Your task to perform on an android device: Show me productivity apps on the Play Store Image 0: 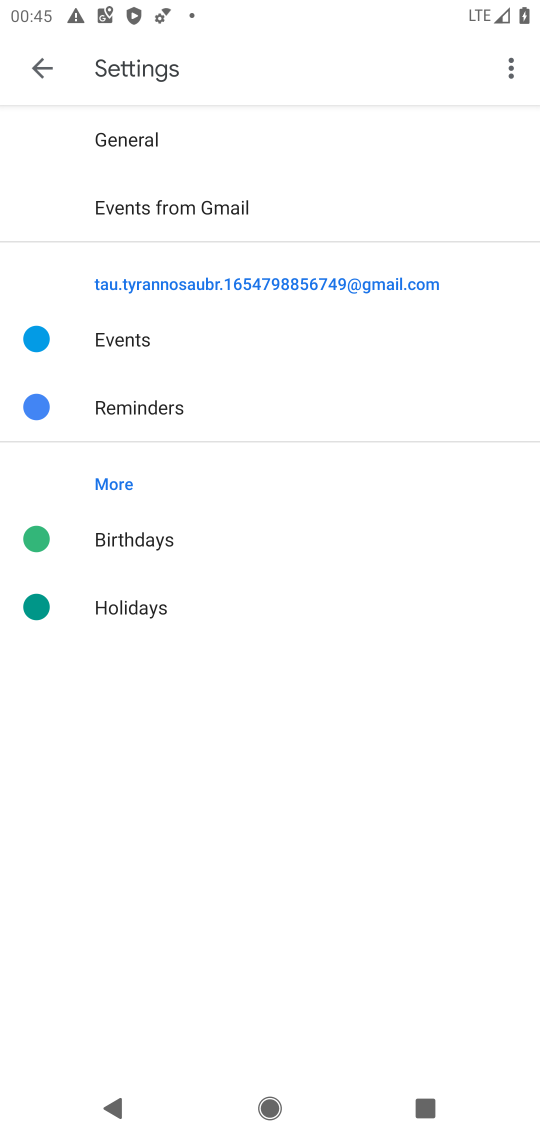
Step 0: press home button
Your task to perform on an android device: Show me productivity apps on the Play Store Image 1: 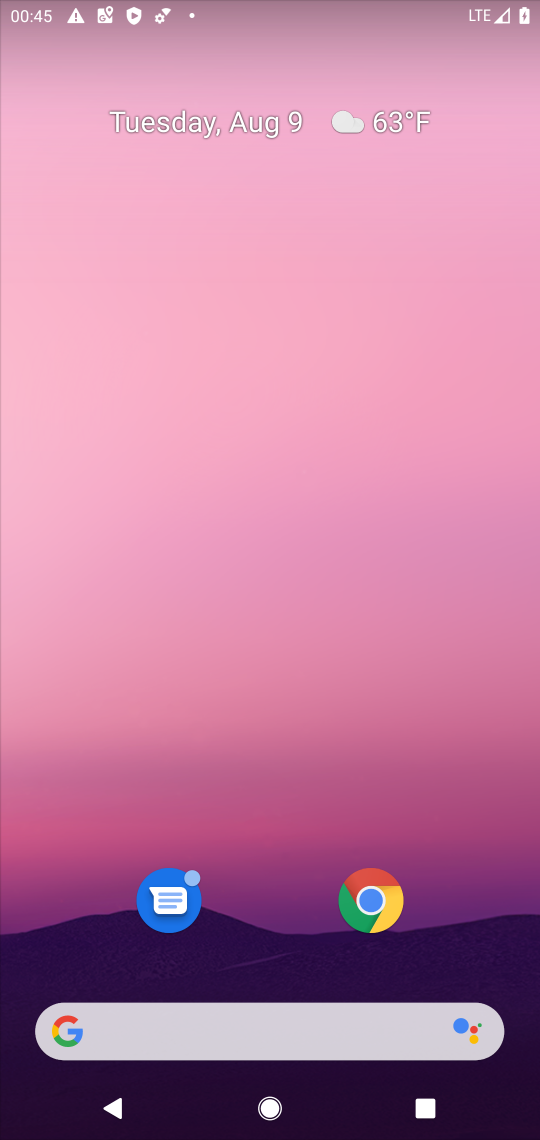
Step 1: drag from (271, 954) to (385, 162)
Your task to perform on an android device: Show me productivity apps on the Play Store Image 2: 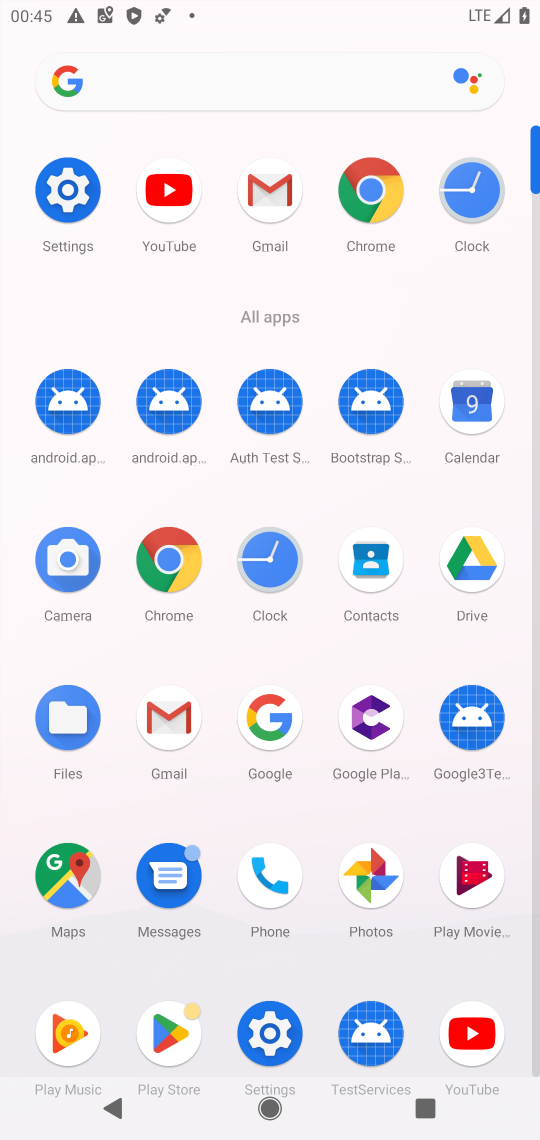
Step 2: click (153, 1034)
Your task to perform on an android device: Show me productivity apps on the Play Store Image 3: 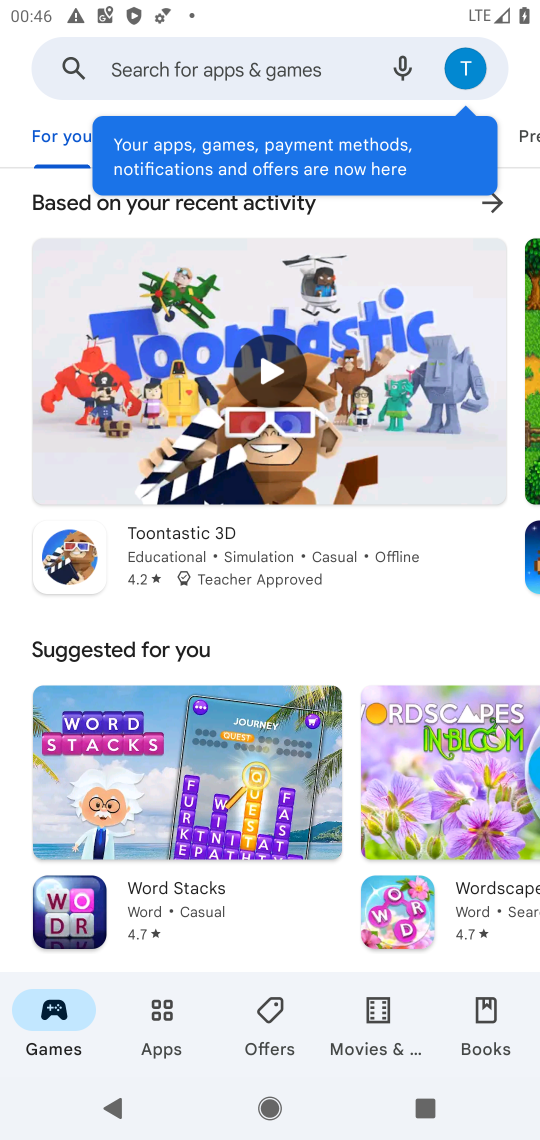
Step 3: click (155, 1018)
Your task to perform on an android device: Show me productivity apps on the Play Store Image 4: 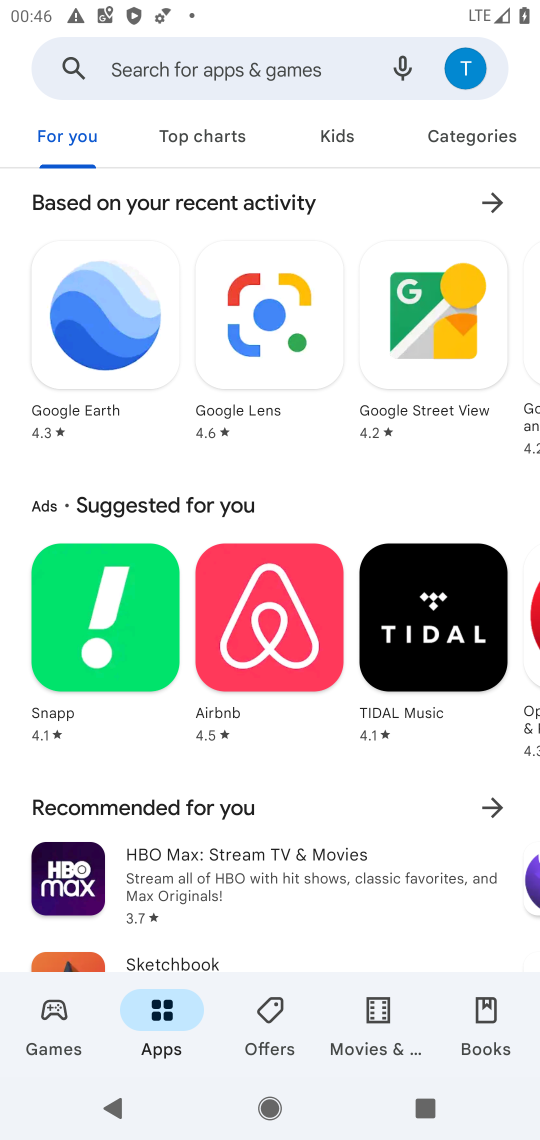
Step 4: task complete